Your task to perform on an android device: Check the weather Image 0: 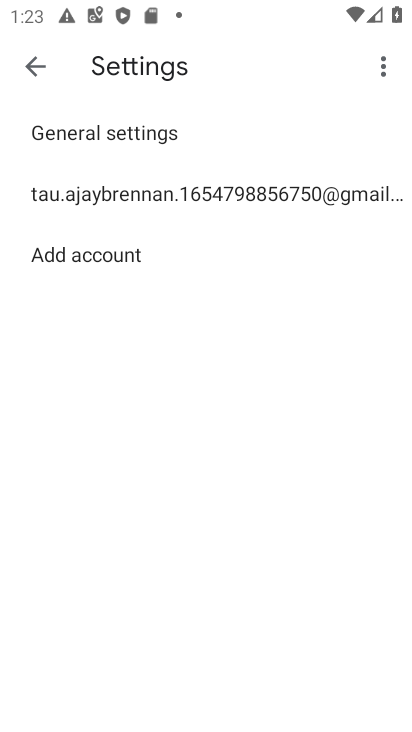
Step 0: press home button
Your task to perform on an android device: Check the weather Image 1: 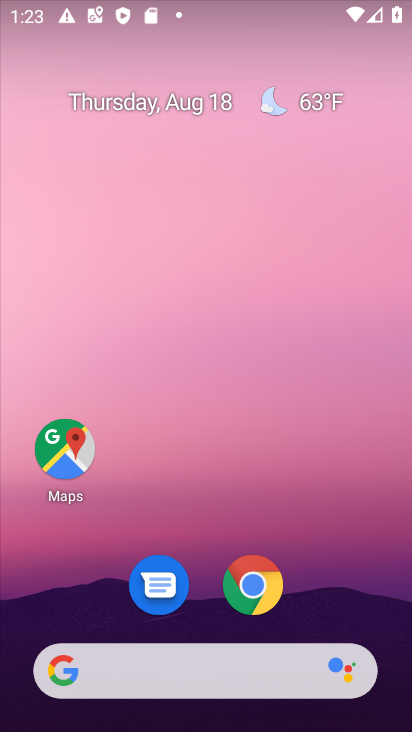
Step 1: click (302, 104)
Your task to perform on an android device: Check the weather Image 2: 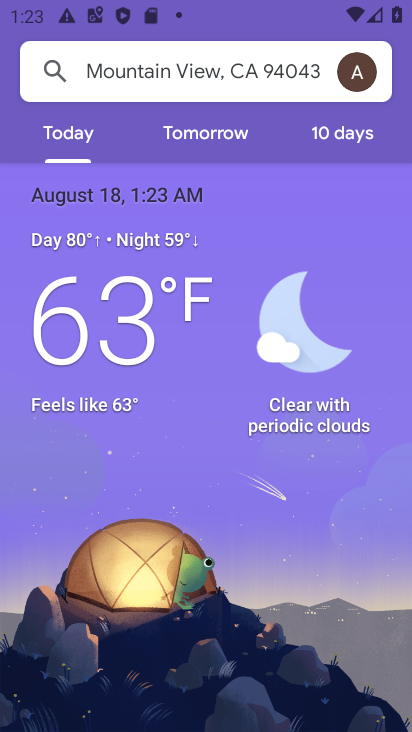
Step 2: task complete